Your task to perform on an android device: open chrome privacy settings Image 0: 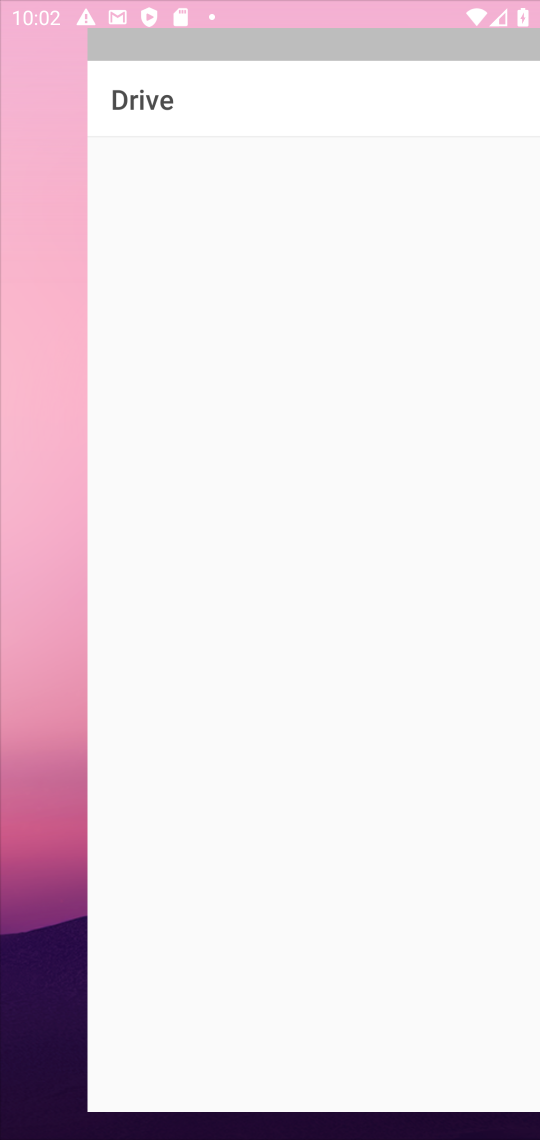
Step 0: press home button
Your task to perform on an android device: open chrome privacy settings Image 1: 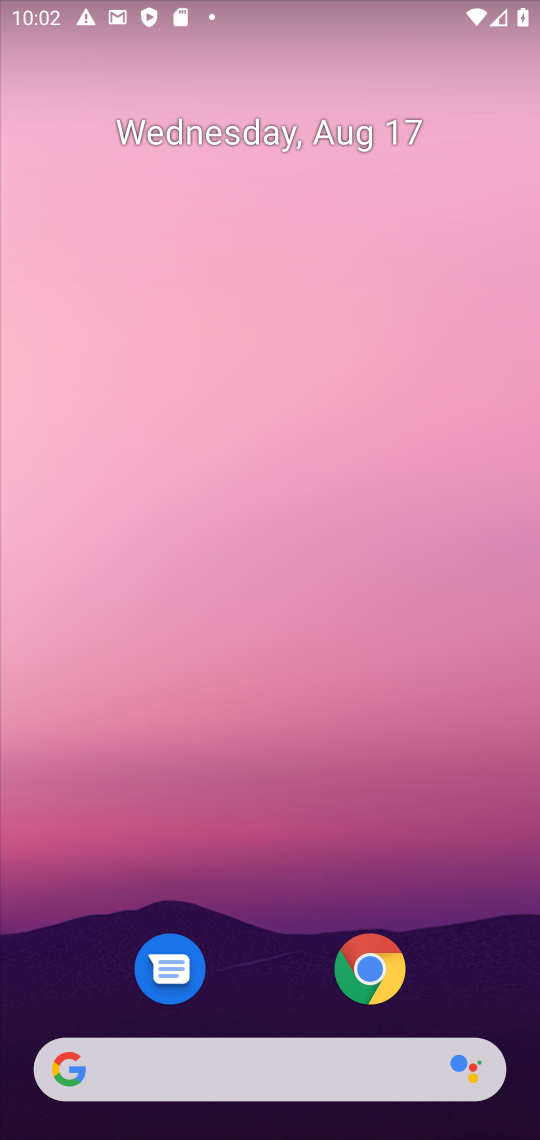
Step 1: click (366, 959)
Your task to perform on an android device: open chrome privacy settings Image 2: 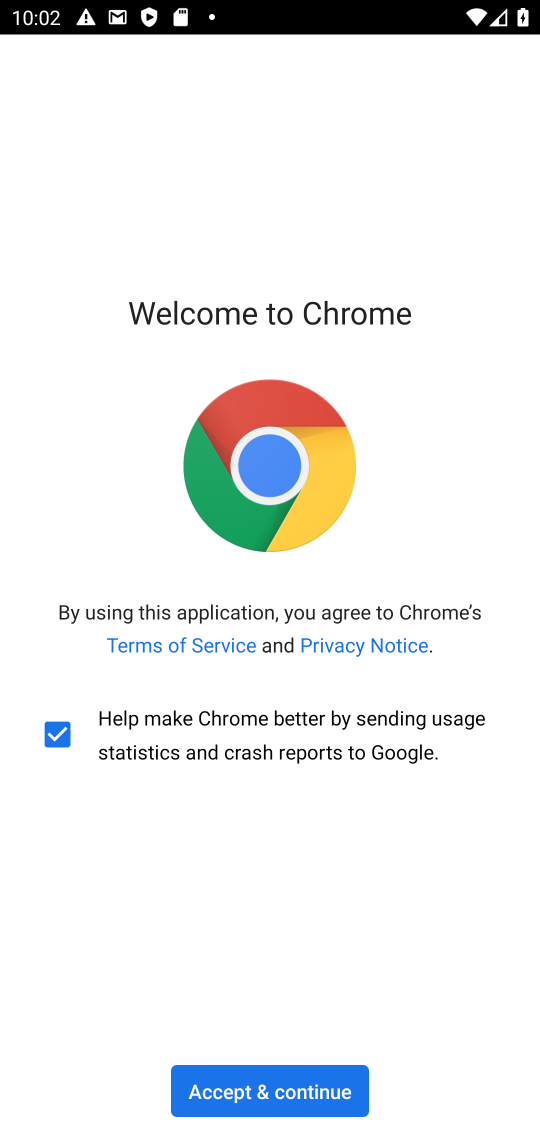
Step 2: click (288, 1091)
Your task to perform on an android device: open chrome privacy settings Image 3: 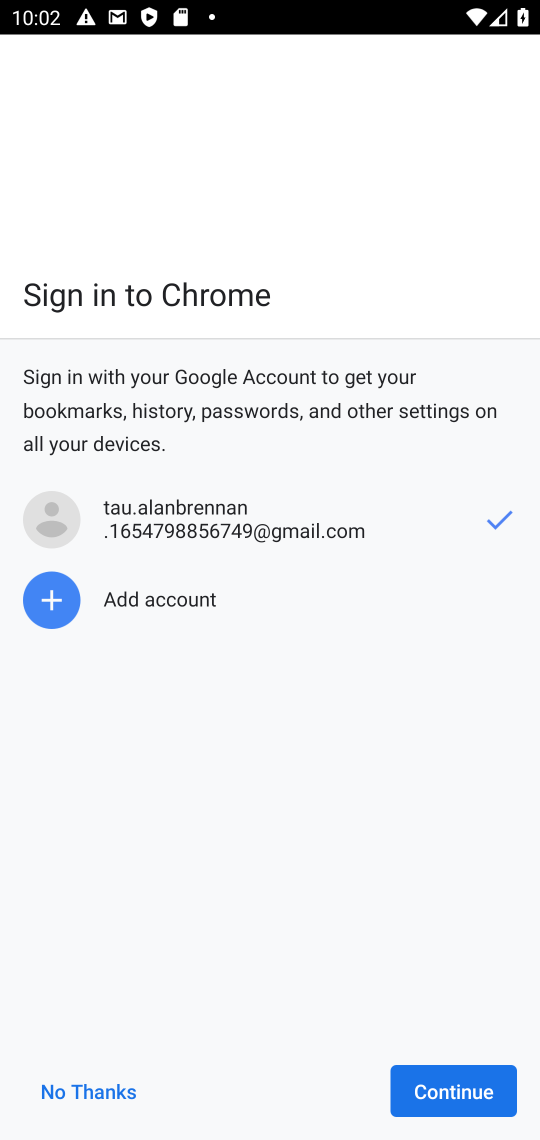
Step 3: click (443, 1101)
Your task to perform on an android device: open chrome privacy settings Image 4: 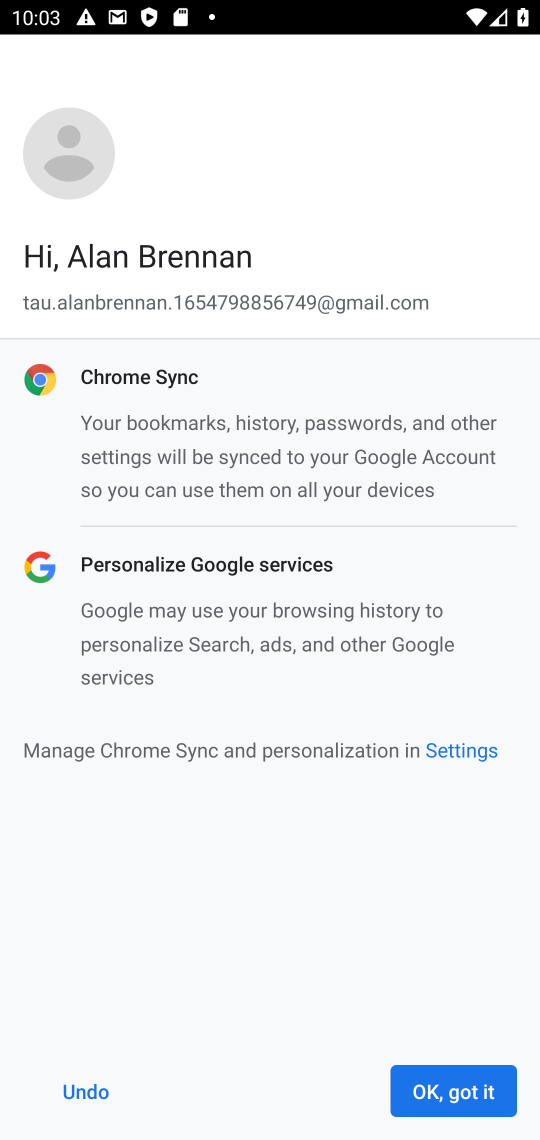
Step 4: click (453, 1090)
Your task to perform on an android device: open chrome privacy settings Image 5: 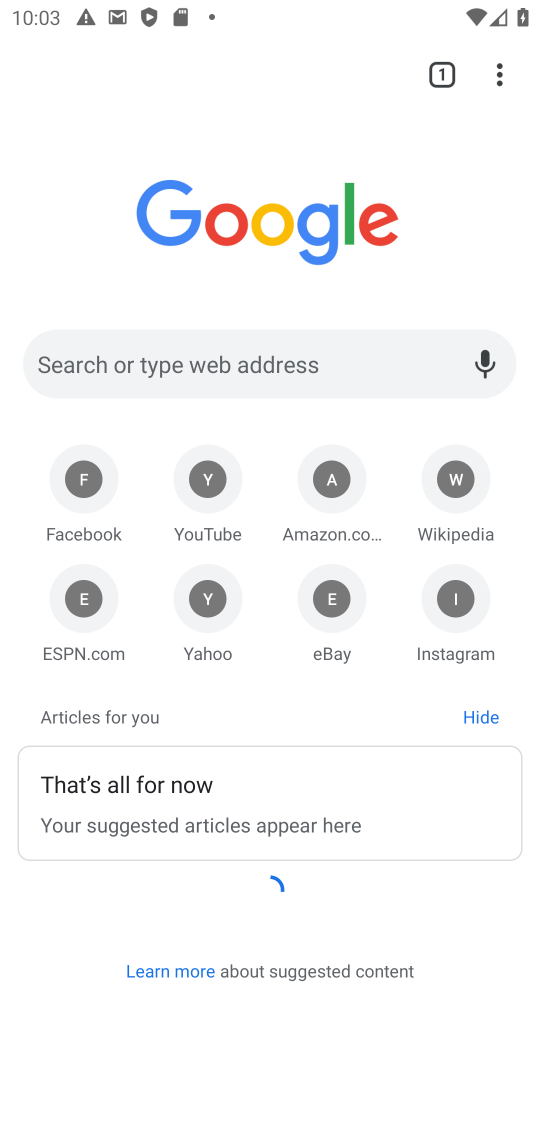
Step 5: click (505, 75)
Your task to perform on an android device: open chrome privacy settings Image 6: 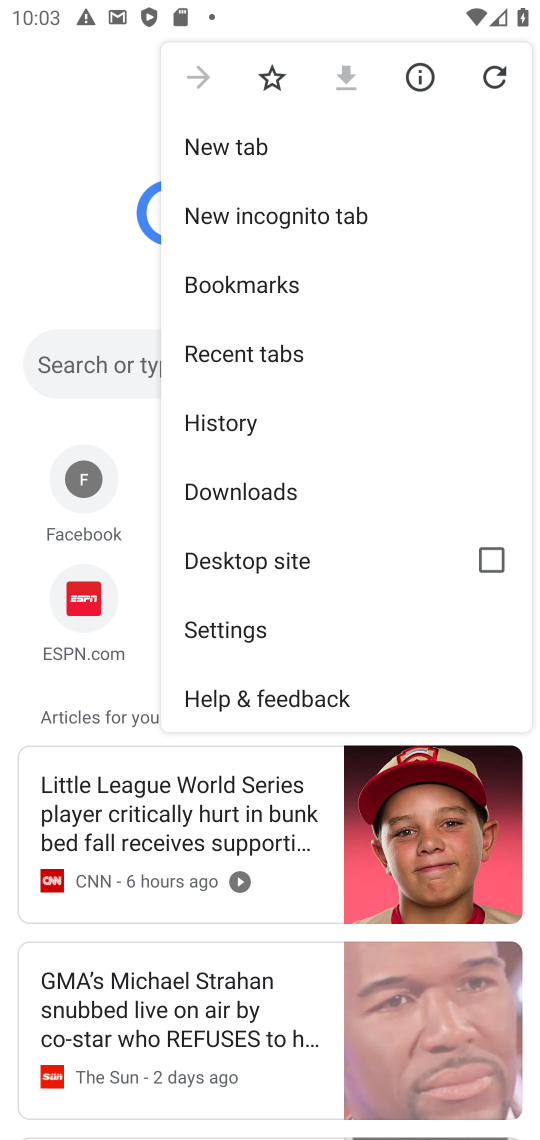
Step 6: click (238, 626)
Your task to perform on an android device: open chrome privacy settings Image 7: 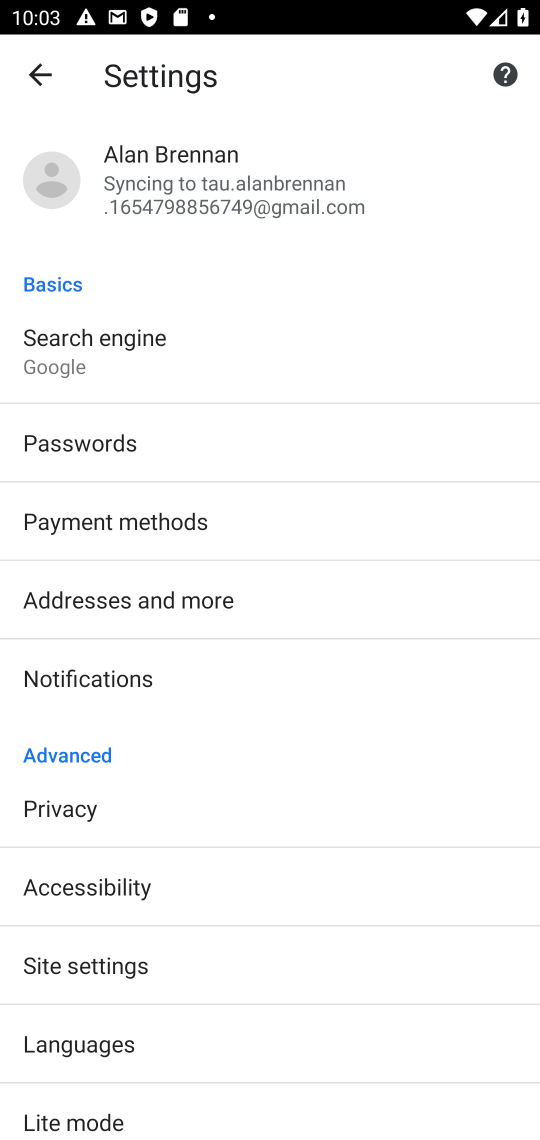
Step 7: click (62, 810)
Your task to perform on an android device: open chrome privacy settings Image 8: 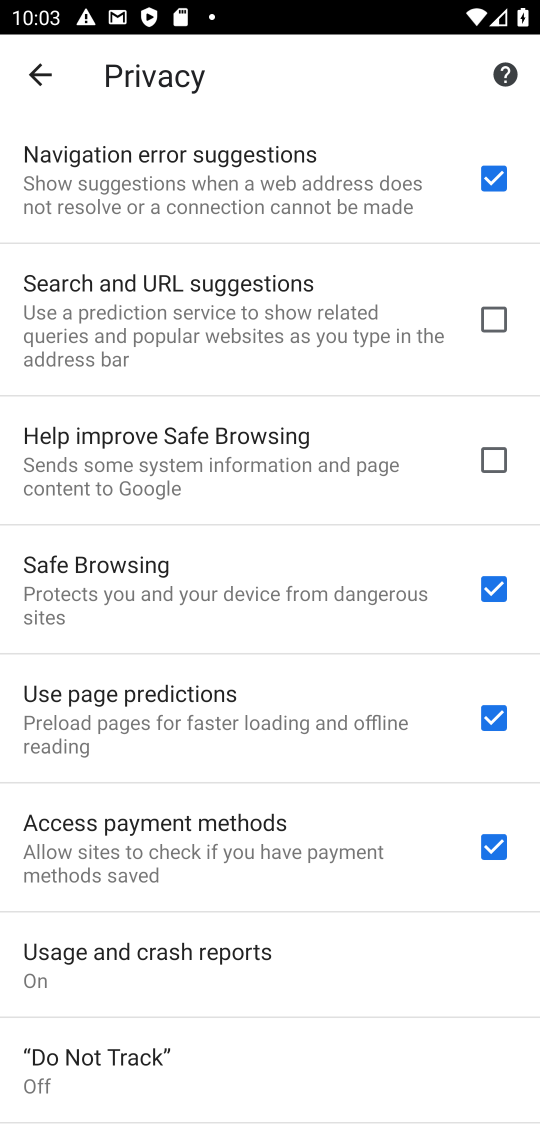
Step 8: task complete